Your task to perform on an android device: Open Google Maps and go to "Timeline" Image 0: 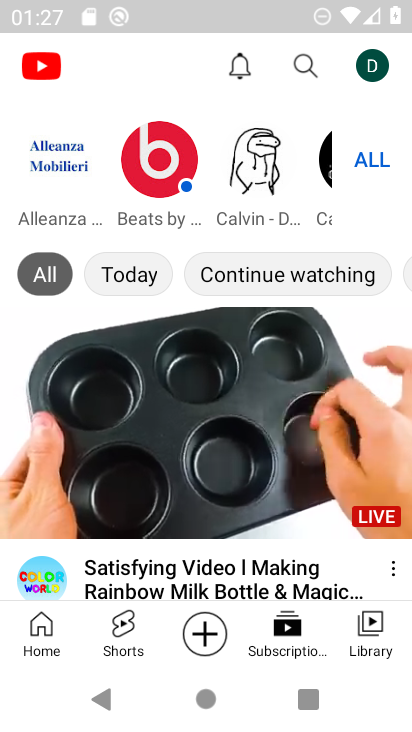
Step 0: press home button
Your task to perform on an android device: Open Google Maps and go to "Timeline" Image 1: 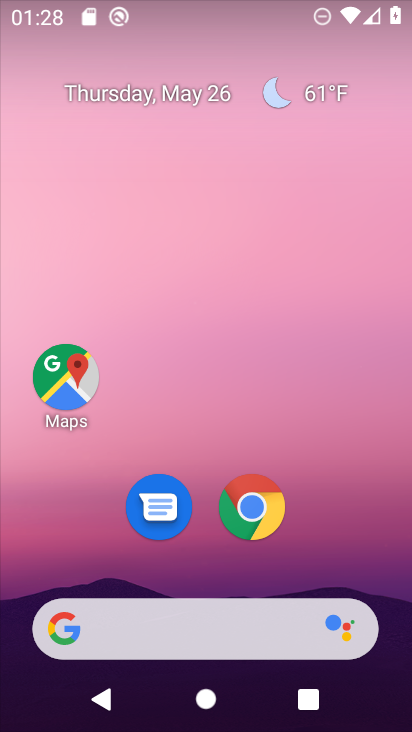
Step 1: drag from (345, 546) to (288, 116)
Your task to perform on an android device: Open Google Maps and go to "Timeline" Image 2: 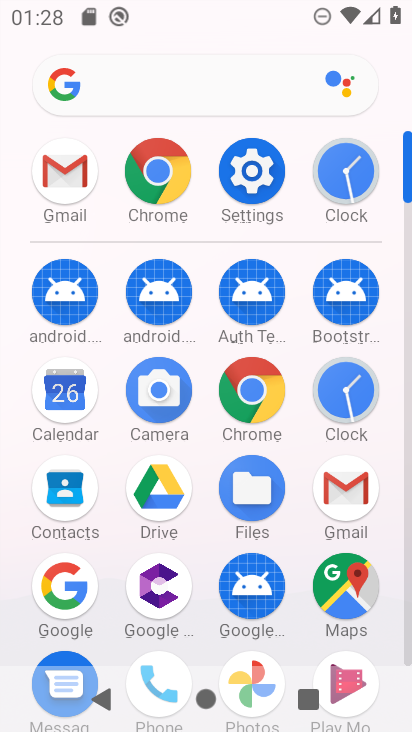
Step 2: click (342, 563)
Your task to perform on an android device: Open Google Maps and go to "Timeline" Image 3: 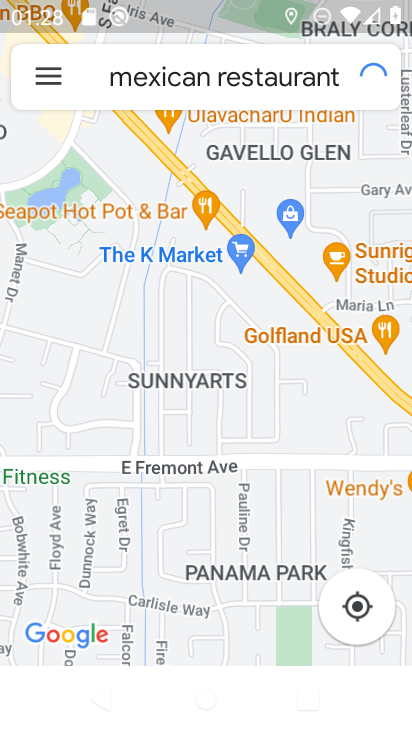
Step 3: click (47, 75)
Your task to perform on an android device: Open Google Maps and go to "Timeline" Image 4: 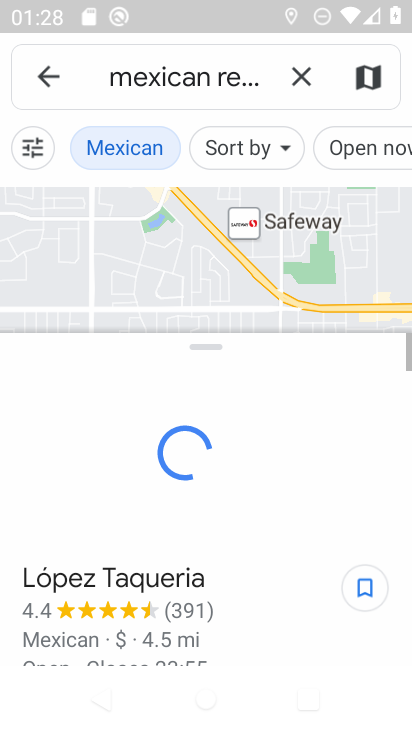
Step 4: click (152, 245)
Your task to perform on an android device: Open Google Maps and go to "Timeline" Image 5: 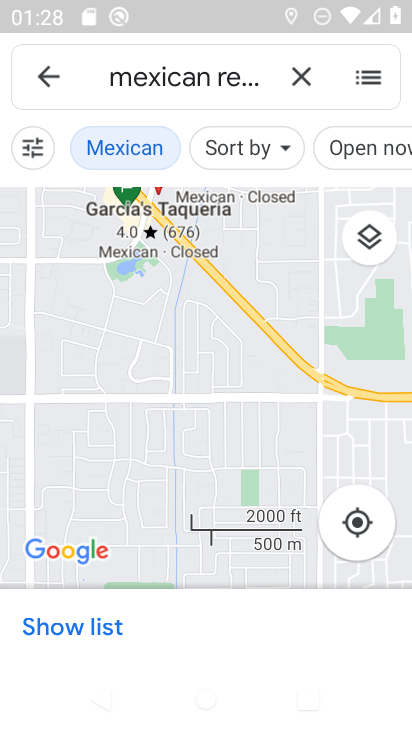
Step 5: task complete